Your task to perform on an android device: Turn on the flashlight Image 0: 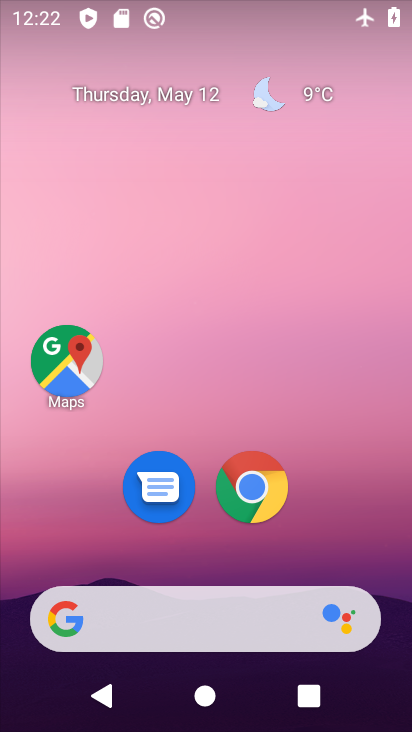
Step 0: drag from (215, 12) to (224, 473)
Your task to perform on an android device: Turn on the flashlight Image 1: 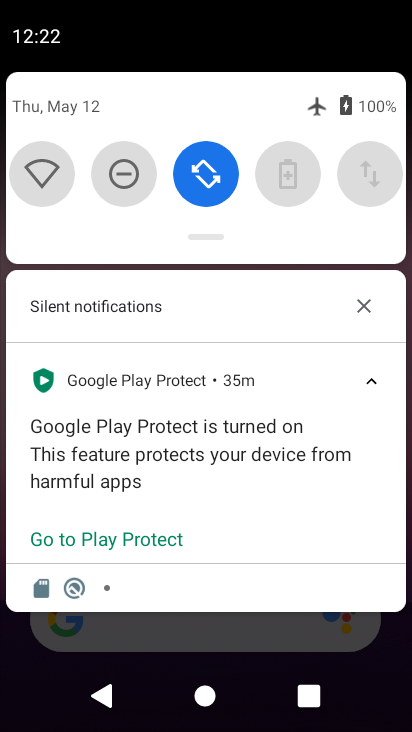
Step 1: drag from (211, 231) to (208, 432)
Your task to perform on an android device: Turn on the flashlight Image 2: 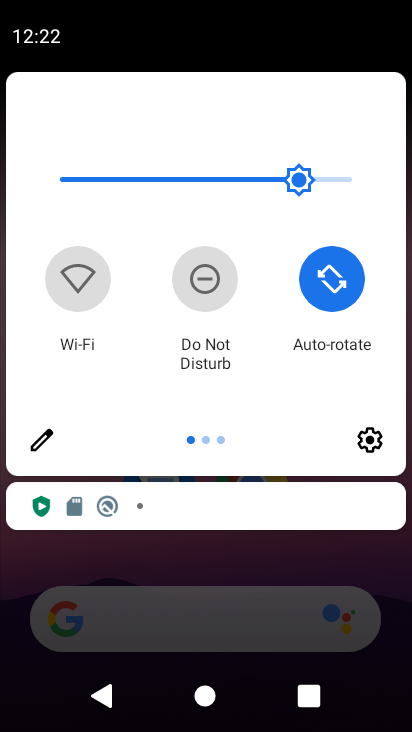
Step 2: click (38, 434)
Your task to perform on an android device: Turn on the flashlight Image 3: 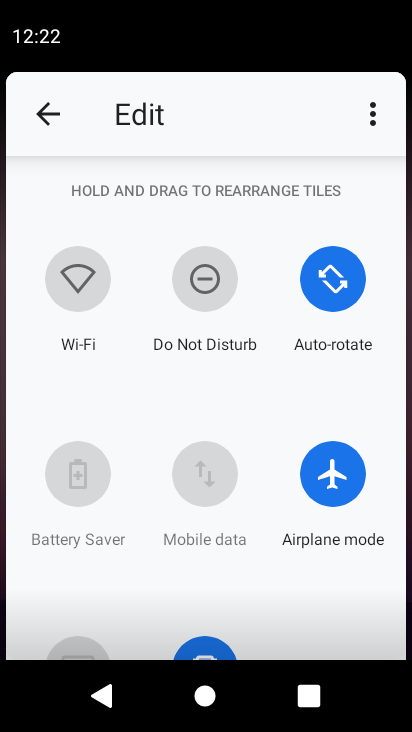
Step 3: task complete